Your task to perform on an android device: read, delete, or share a saved page in the chrome app Image 0: 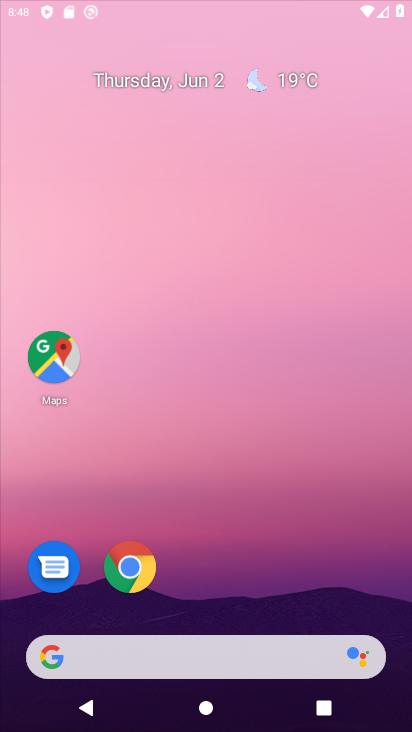
Step 0: press home button
Your task to perform on an android device: read, delete, or share a saved page in the chrome app Image 1: 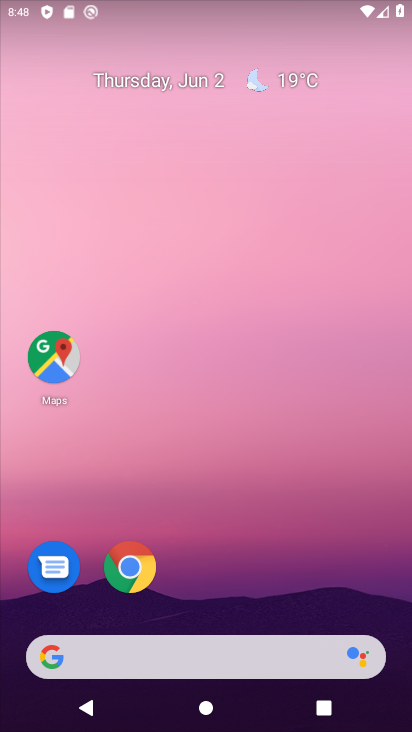
Step 1: click (128, 569)
Your task to perform on an android device: read, delete, or share a saved page in the chrome app Image 2: 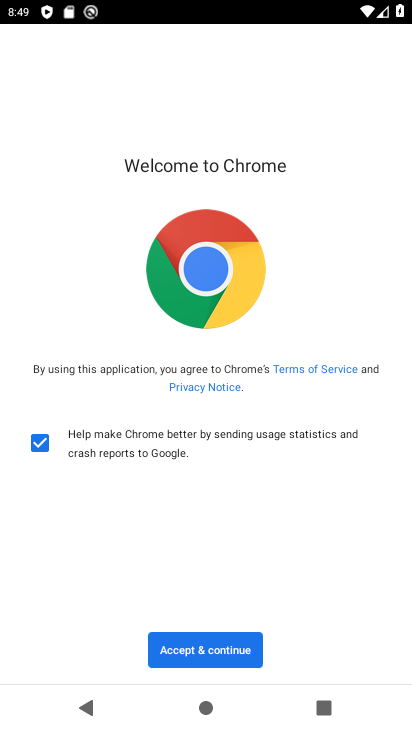
Step 2: click (204, 644)
Your task to perform on an android device: read, delete, or share a saved page in the chrome app Image 3: 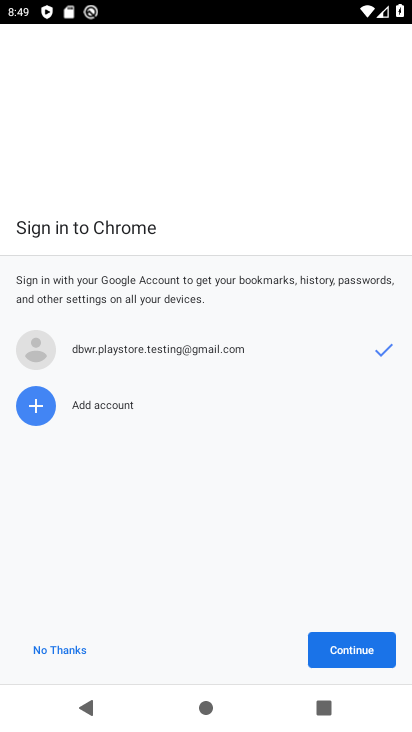
Step 3: click (359, 645)
Your task to perform on an android device: read, delete, or share a saved page in the chrome app Image 4: 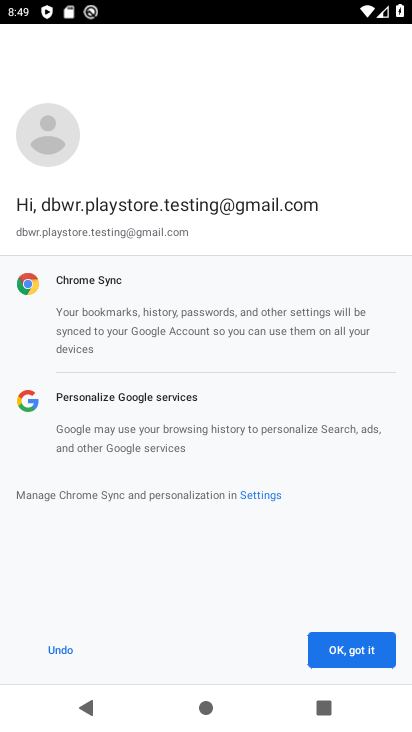
Step 4: click (345, 648)
Your task to perform on an android device: read, delete, or share a saved page in the chrome app Image 5: 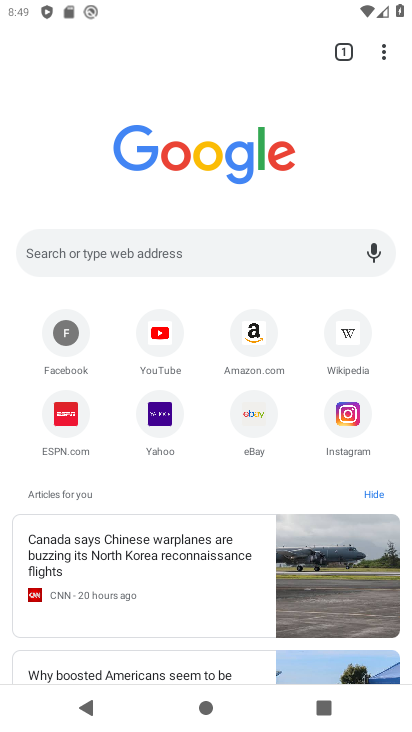
Step 5: click (385, 46)
Your task to perform on an android device: read, delete, or share a saved page in the chrome app Image 6: 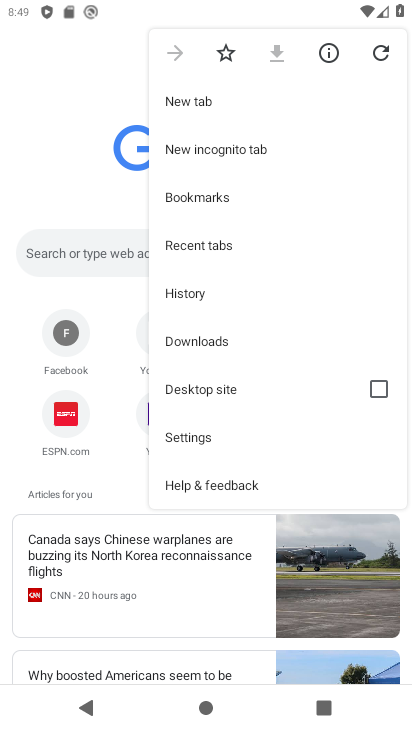
Step 6: click (242, 333)
Your task to perform on an android device: read, delete, or share a saved page in the chrome app Image 7: 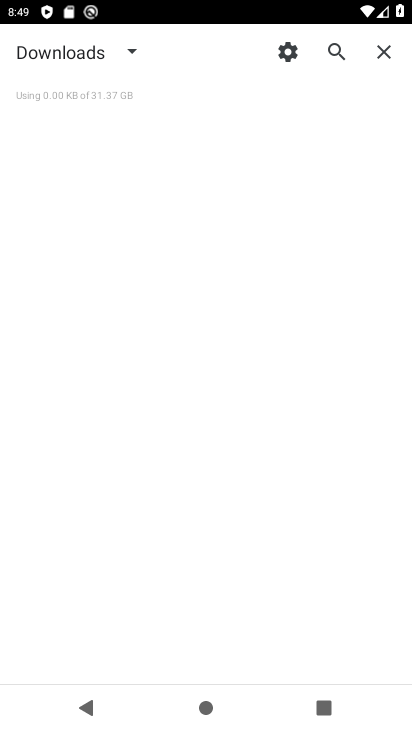
Step 7: task complete